Your task to perform on an android device: Go to privacy settings Image 0: 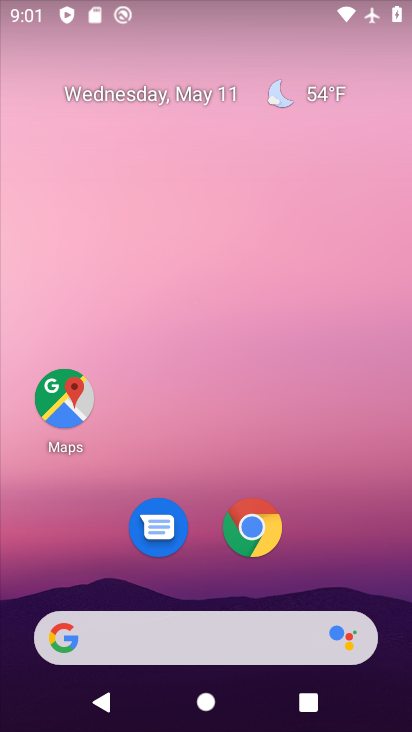
Step 0: drag from (307, 550) to (318, 100)
Your task to perform on an android device: Go to privacy settings Image 1: 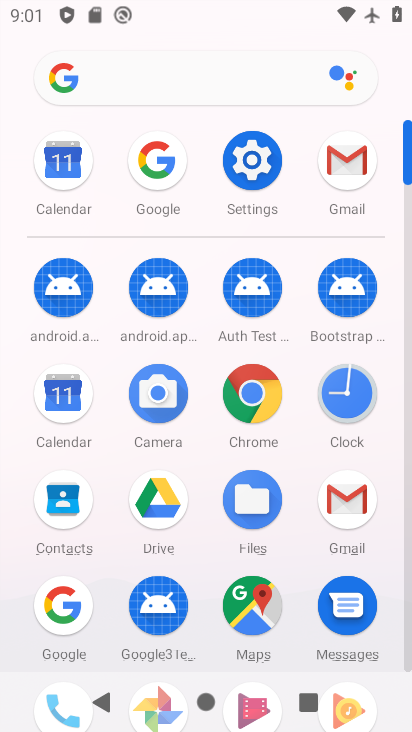
Step 1: click (245, 167)
Your task to perform on an android device: Go to privacy settings Image 2: 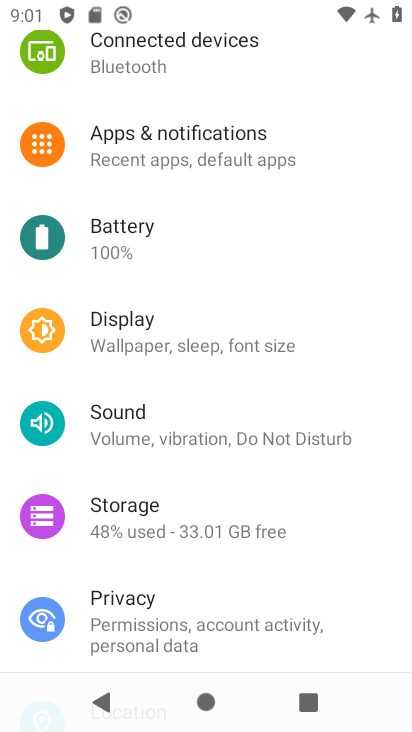
Step 2: click (224, 633)
Your task to perform on an android device: Go to privacy settings Image 3: 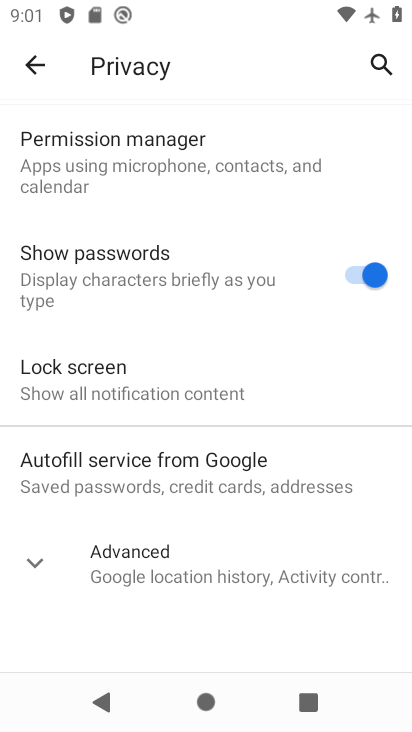
Step 3: task complete